Your task to perform on an android device: What's the weather going to be tomorrow? Image 0: 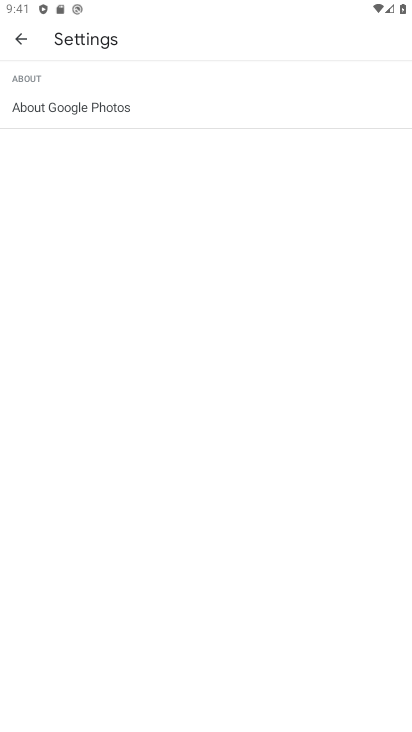
Step 0: press home button
Your task to perform on an android device: What's the weather going to be tomorrow? Image 1: 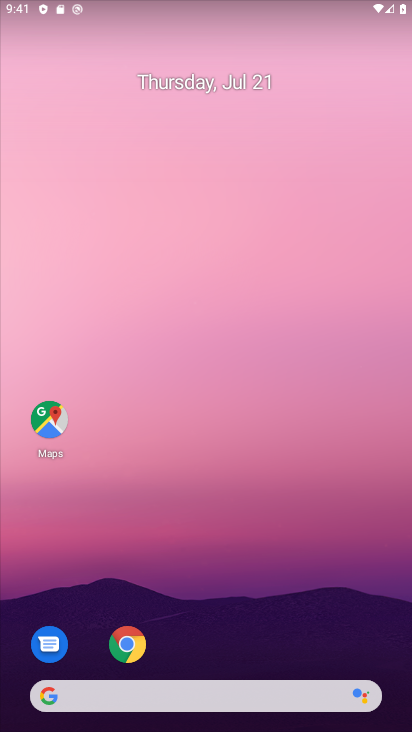
Step 1: click (239, 696)
Your task to perform on an android device: What's the weather going to be tomorrow? Image 2: 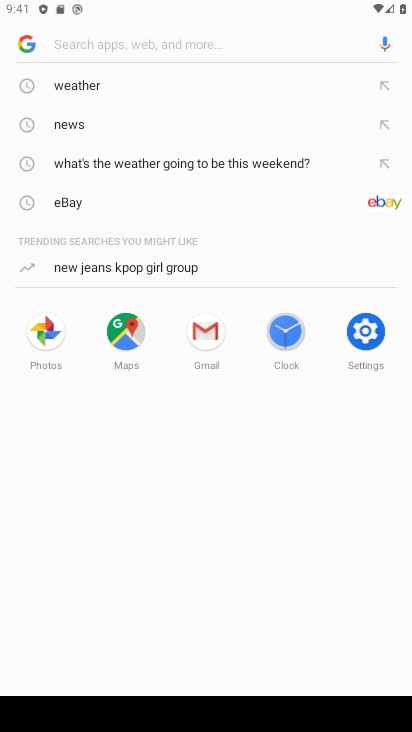
Step 2: click (97, 86)
Your task to perform on an android device: What's the weather going to be tomorrow? Image 3: 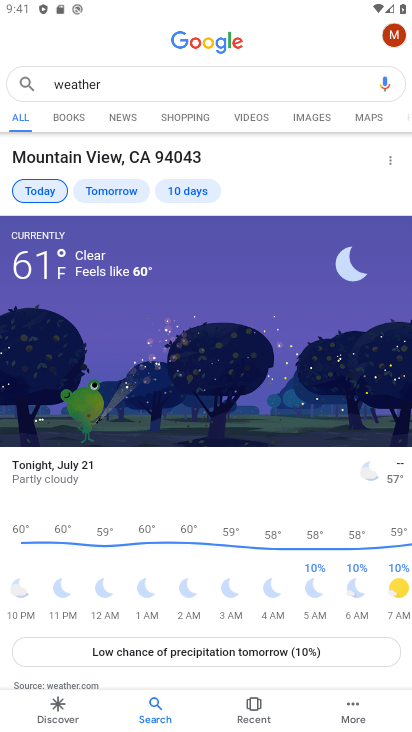
Step 3: click (107, 184)
Your task to perform on an android device: What's the weather going to be tomorrow? Image 4: 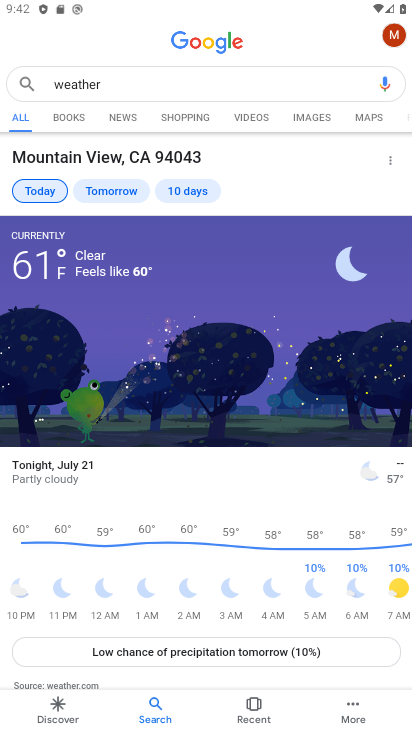
Step 4: click (115, 194)
Your task to perform on an android device: What's the weather going to be tomorrow? Image 5: 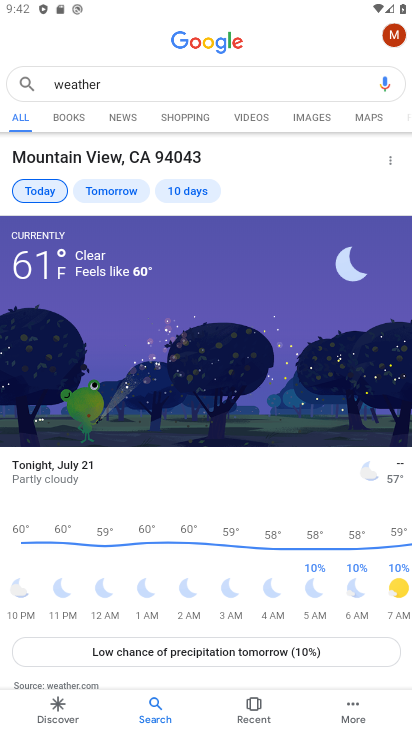
Step 5: click (116, 194)
Your task to perform on an android device: What's the weather going to be tomorrow? Image 6: 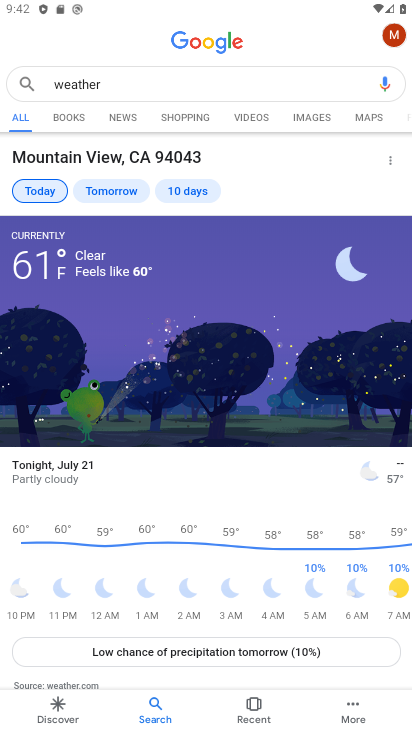
Step 6: click (117, 194)
Your task to perform on an android device: What's the weather going to be tomorrow? Image 7: 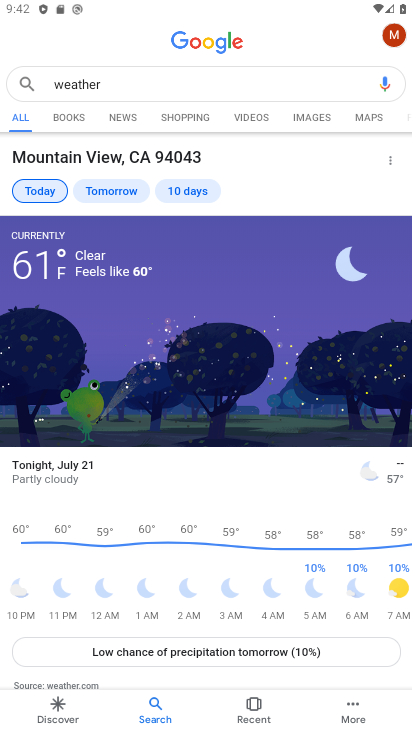
Step 7: click (119, 194)
Your task to perform on an android device: What's the weather going to be tomorrow? Image 8: 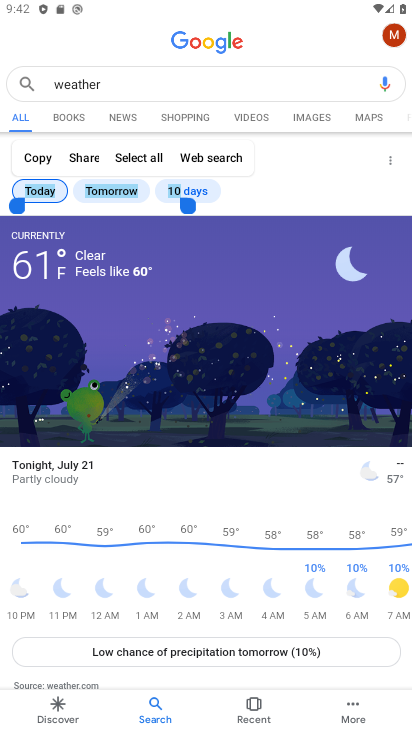
Step 8: task complete